Your task to perform on an android device: Turn on the flashlight Image 0: 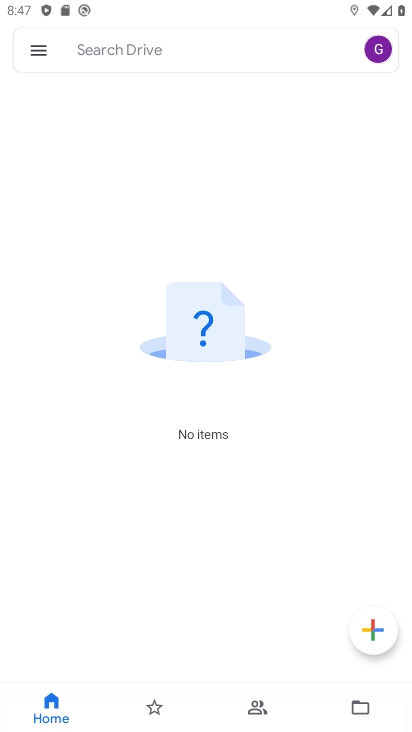
Step 0: press home button
Your task to perform on an android device: Turn on the flashlight Image 1: 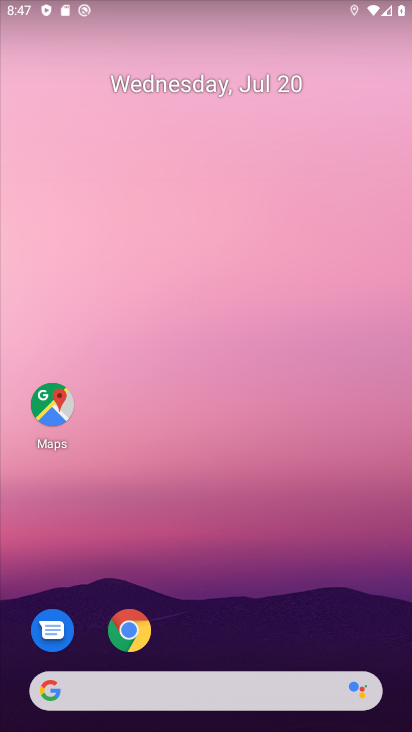
Step 1: task complete